Your task to perform on an android device: find which apps use the phone's location Image 0: 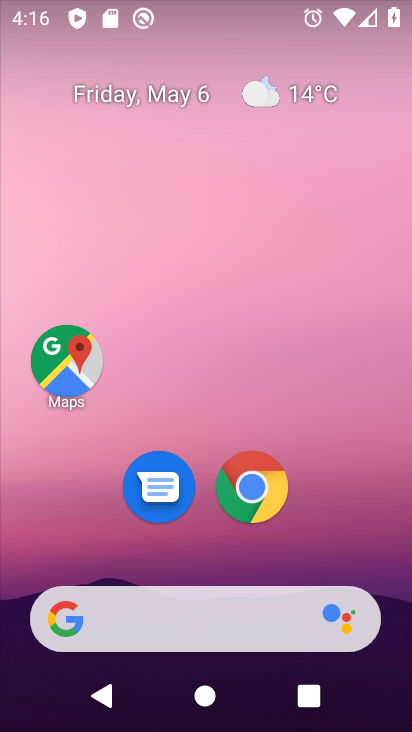
Step 0: drag from (205, 583) to (133, 5)
Your task to perform on an android device: find which apps use the phone's location Image 1: 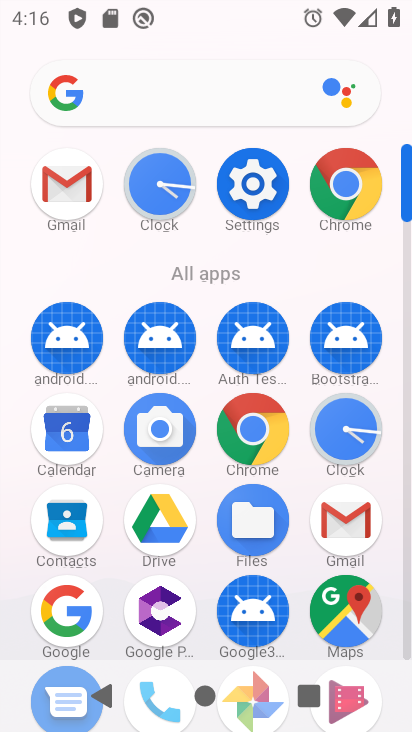
Step 1: click (253, 170)
Your task to perform on an android device: find which apps use the phone's location Image 2: 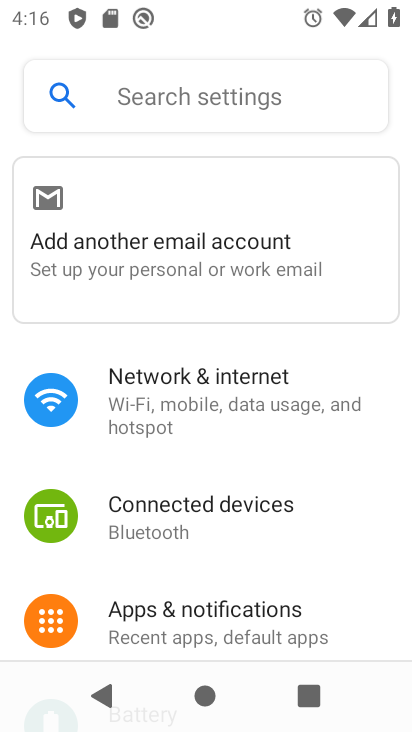
Step 2: drag from (301, 614) to (245, 252)
Your task to perform on an android device: find which apps use the phone's location Image 3: 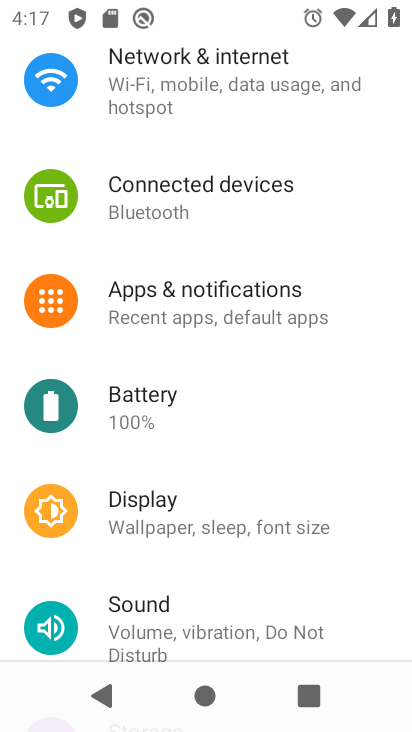
Step 3: drag from (232, 575) to (185, 126)
Your task to perform on an android device: find which apps use the phone's location Image 4: 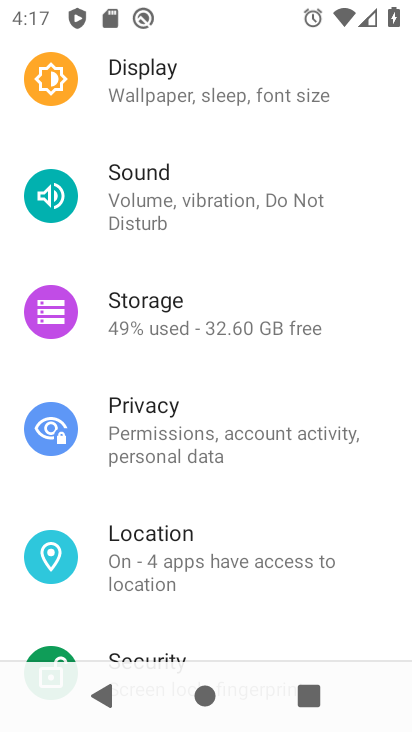
Step 4: click (175, 538)
Your task to perform on an android device: find which apps use the phone's location Image 5: 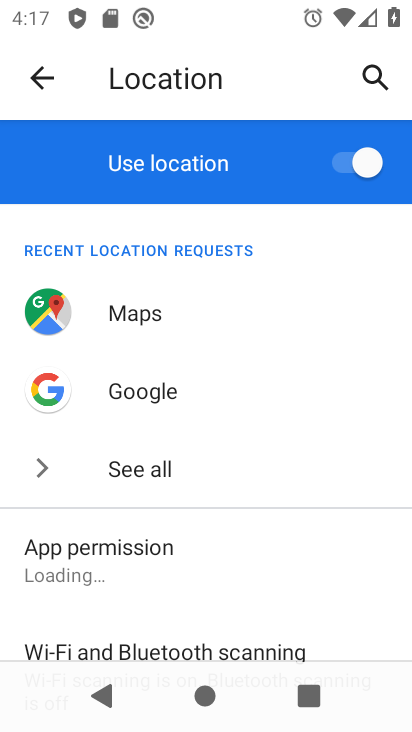
Step 5: click (168, 556)
Your task to perform on an android device: find which apps use the phone's location Image 6: 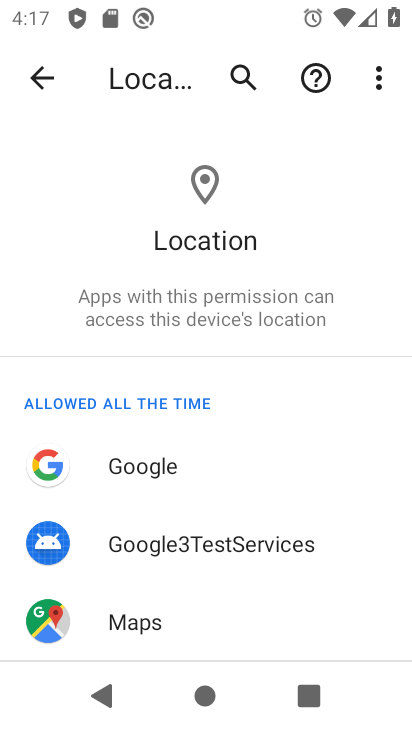
Step 6: task complete